Your task to perform on an android device: open a bookmark in the chrome app Image 0: 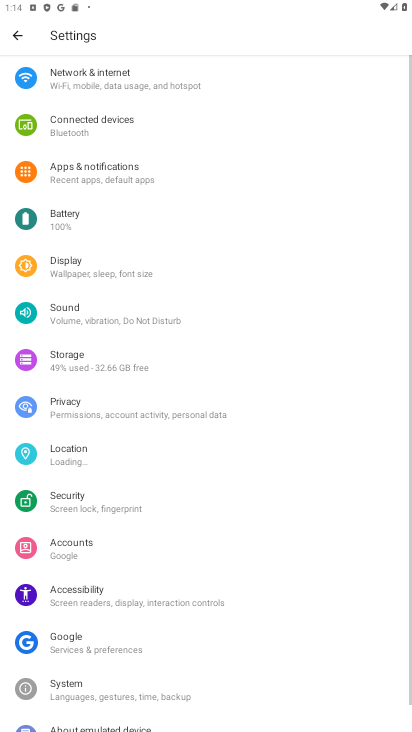
Step 0: press home button
Your task to perform on an android device: open a bookmark in the chrome app Image 1: 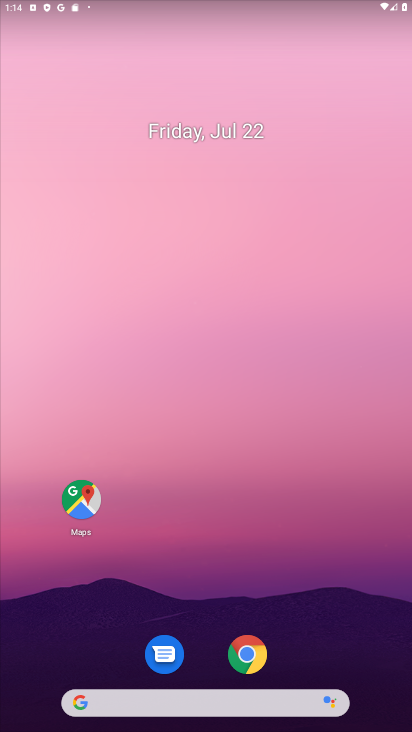
Step 1: click (252, 650)
Your task to perform on an android device: open a bookmark in the chrome app Image 2: 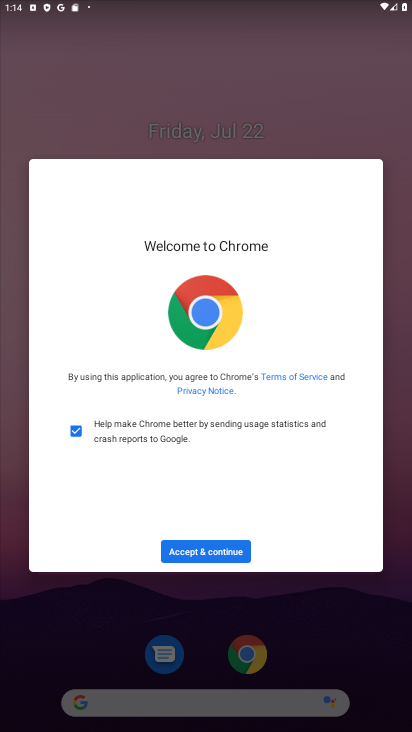
Step 2: click (209, 553)
Your task to perform on an android device: open a bookmark in the chrome app Image 3: 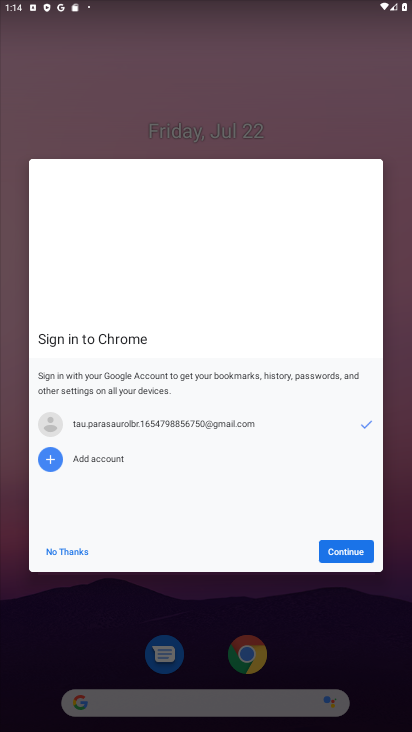
Step 3: click (337, 545)
Your task to perform on an android device: open a bookmark in the chrome app Image 4: 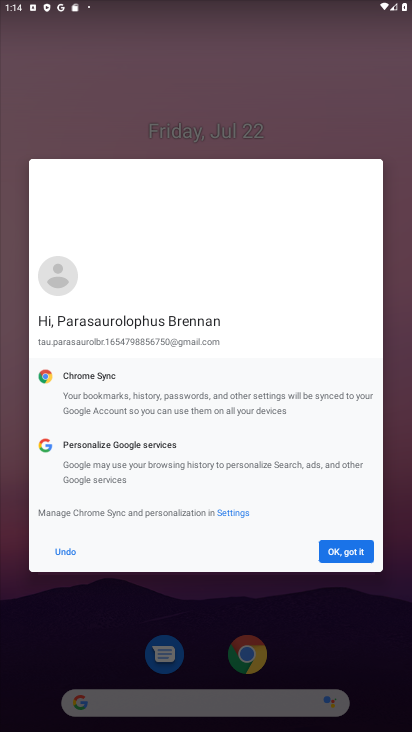
Step 4: click (339, 549)
Your task to perform on an android device: open a bookmark in the chrome app Image 5: 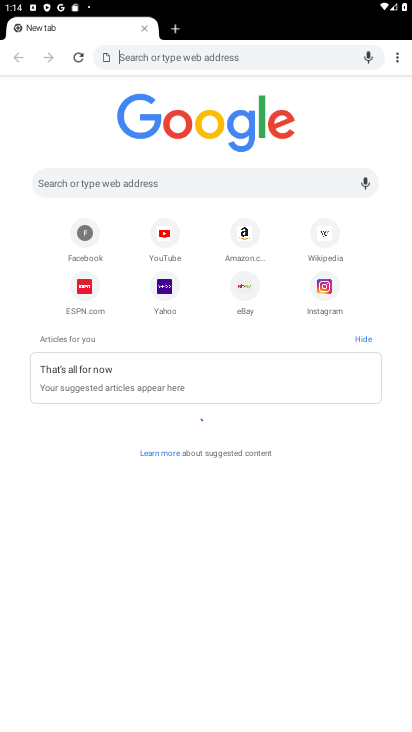
Step 5: click (395, 62)
Your task to perform on an android device: open a bookmark in the chrome app Image 6: 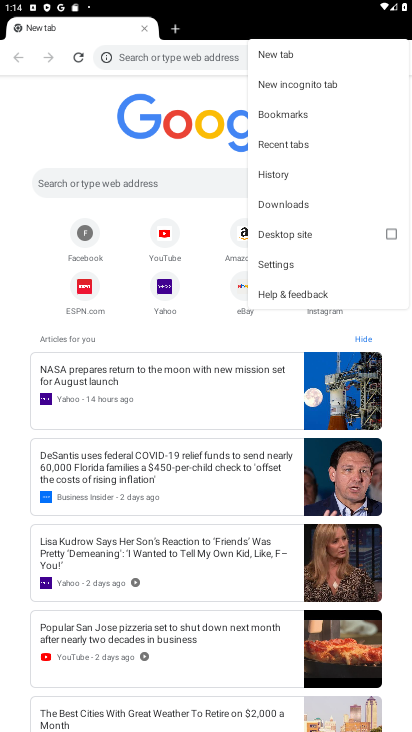
Step 6: click (297, 120)
Your task to perform on an android device: open a bookmark in the chrome app Image 7: 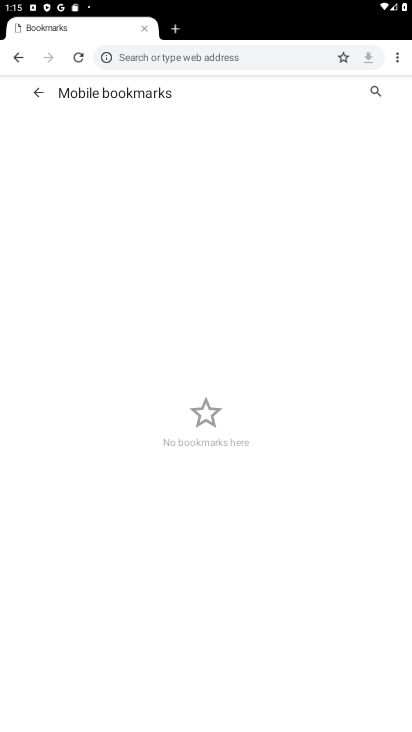
Step 7: task complete